Your task to perform on an android device: Do I have any events tomorrow? Image 0: 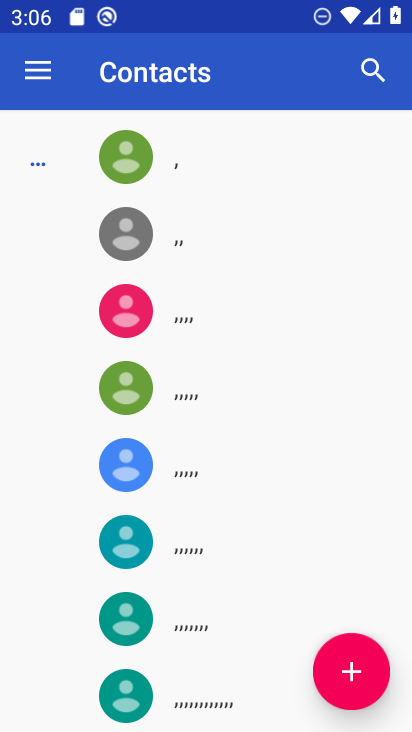
Step 0: press home button
Your task to perform on an android device: Do I have any events tomorrow? Image 1: 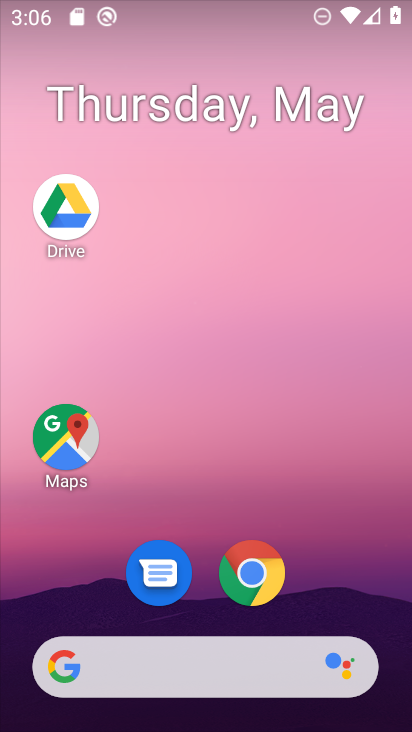
Step 1: drag from (220, 476) to (172, 7)
Your task to perform on an android device: Do I have any events tomorrow? Image 2: 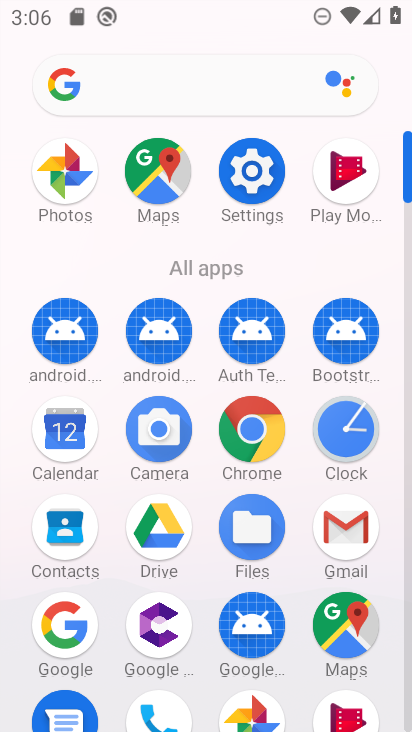
Step 2: click (52, 445)
Your task to perform on an android device: Do I have any events tomorrow? Image 3: 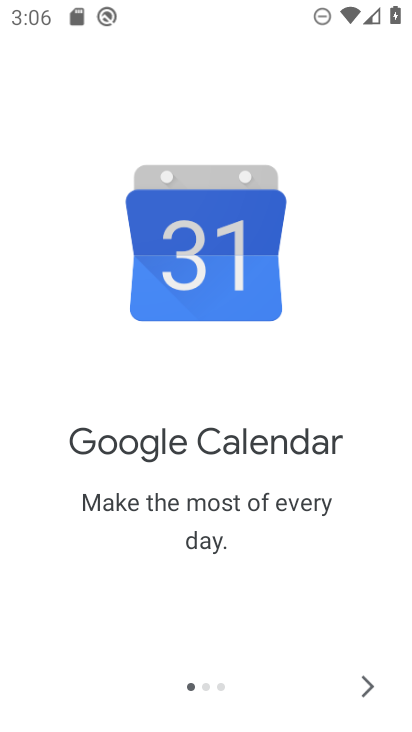
Step 3: click (372, 687)
Your task to perform on an android device: Do I have any events tomorrow? Image 4: 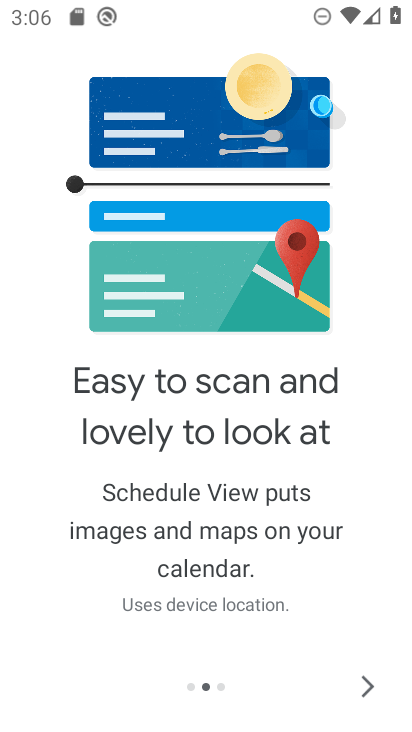
Step 4: click (372, 687)
Your task to perform on an android device: Do I have any events tomorrow? Image 5: 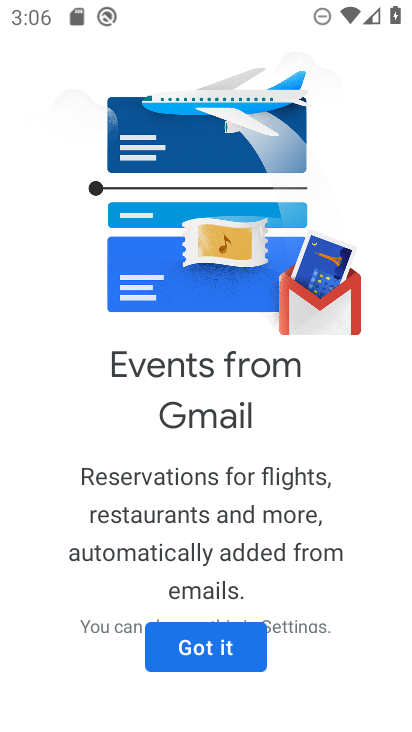
Step 5: click (244, 652)
Your task to perform on an android device: Do I have any events tomorrow? Image 6: 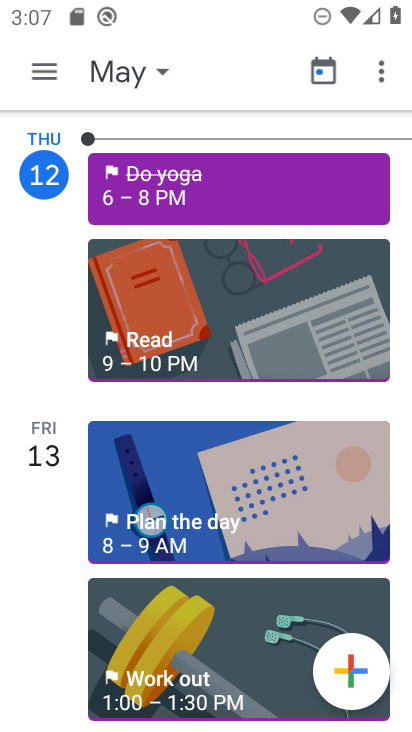
Step 6: click (161, 76)
Your task to perform on an android device: Do I have any events tomorrow? Image 7: 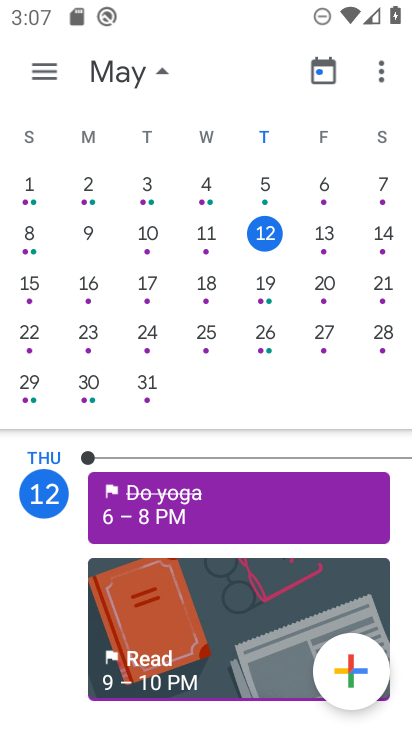
Step 7: click (268, 222)
Your task to perform on an android device: Do I have any events tomorrow? Image 8: 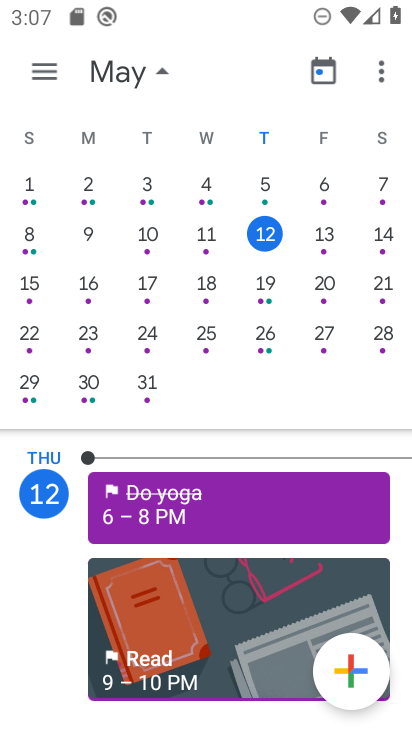
Step 8: click (266, 239)
Your task to perform on an android device: Do I have any events tomorrow? Image 9: 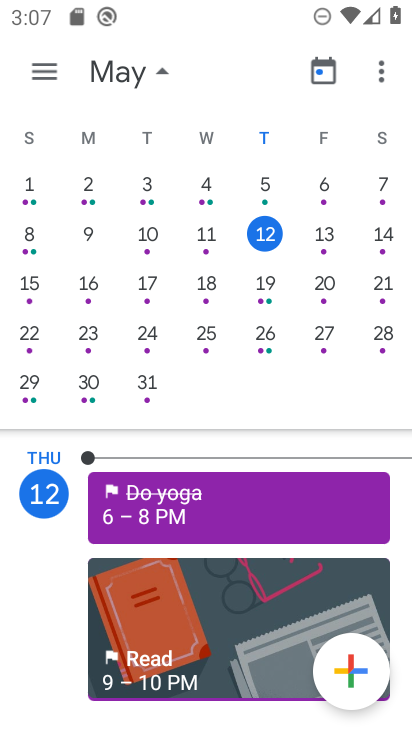
Step 9: task complete